Your task to perform on an android device: turn off notifications settings in the gmail app Image 0: 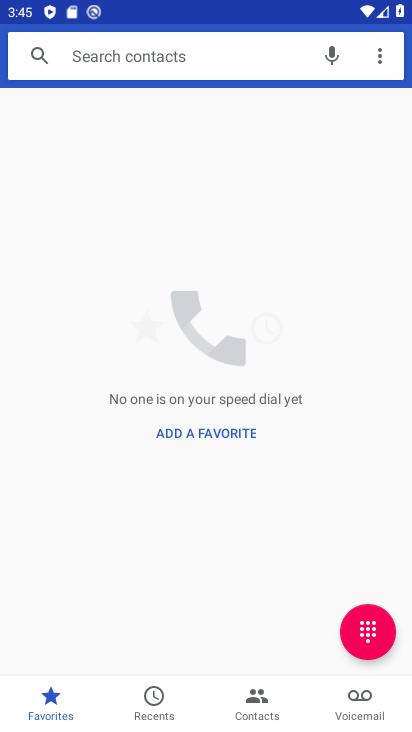
Step 0: press home button
Your task to perform on an android device: turn off notifications settings in the gmail app Image 1: 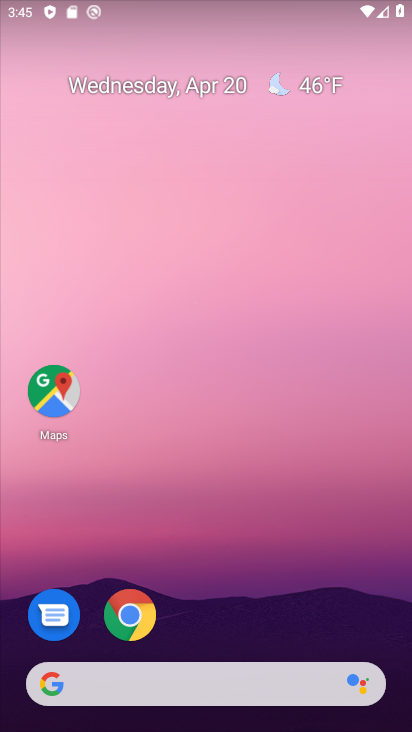
Step 1: drag from (344, 498) to (407, 193)
Your task to perform on an android device: turn off notifications settings in the gmail app Image 2: 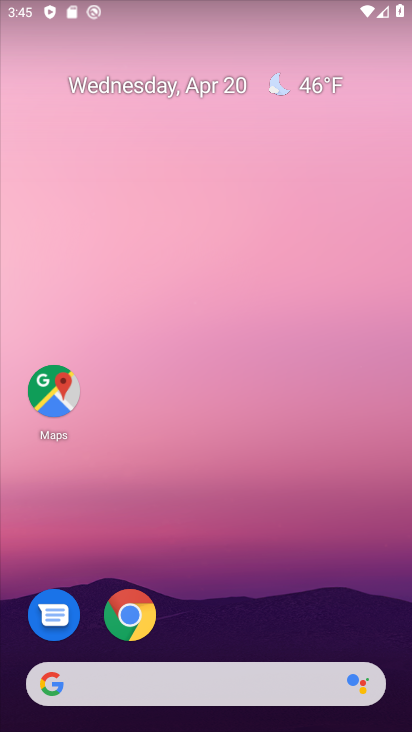
Step 2: drag from (286, 588) to (384, 162)
Your task to perform on an android device: turn off notifications settings in the gmail app Image 3: 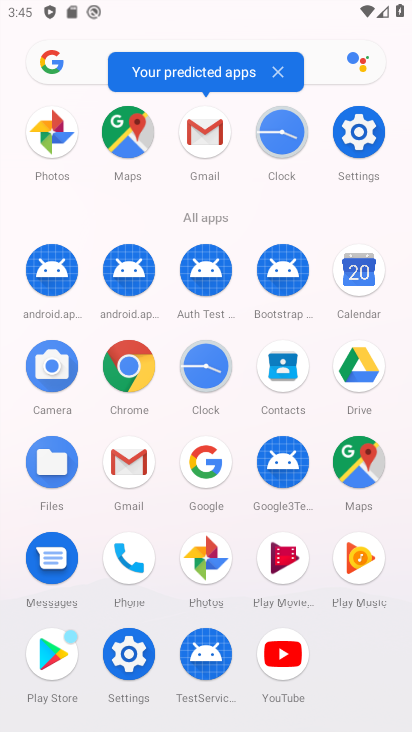
Step 3: click (173, 127)
Your task to perform on an android device: turn off notifications settings in the gmail app Image 4: 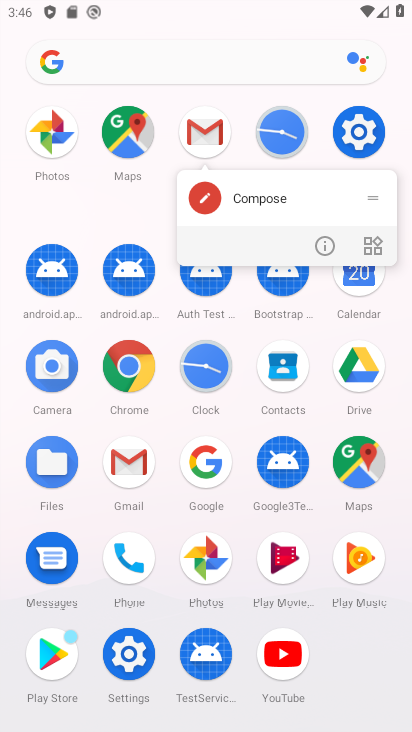
Step 4: click (206, 117)
Your task to perform on an android device: turn off notifications settings in the gmail app Image 5: 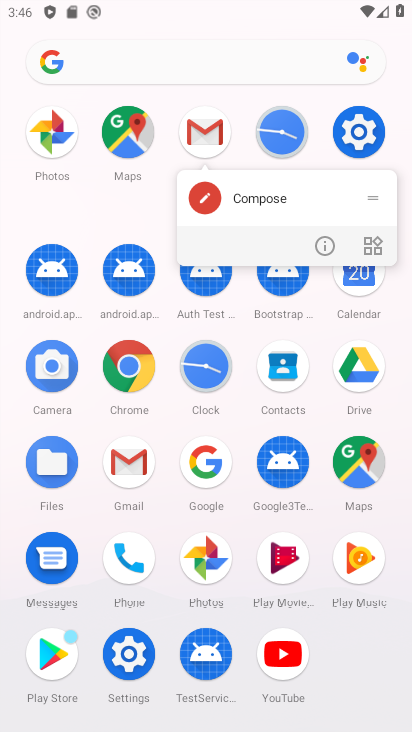
Step 5: click (206, 117)
Your task to perform on an android device: turn off notifications settings in the gmail app Image 6: 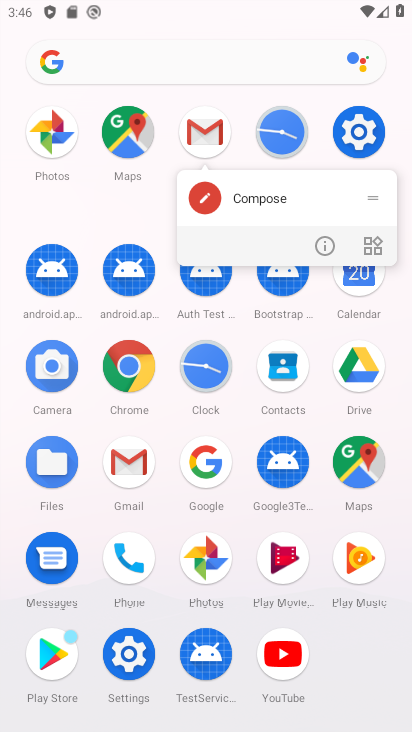
Step 6: click (193, 123)
Your task to perform on an android device: turn off notifications settings in the gmail app Image 7: 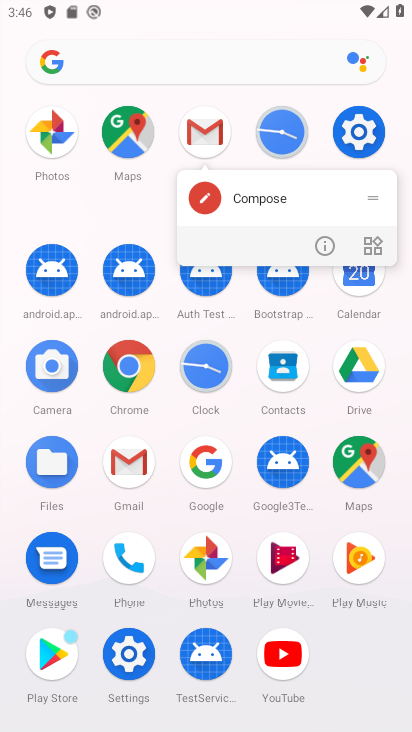
Step 7: click (194, 118)
Your task to perform on an android device: turn off notifications settings in the gmail app Image 8: 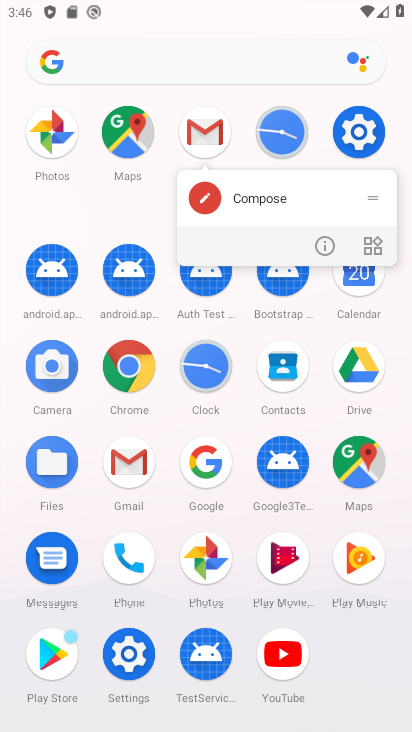
Step 8: click (194, 118)
Your task to perform on an android device: turn off notifications settings in the gmail app Image 9: 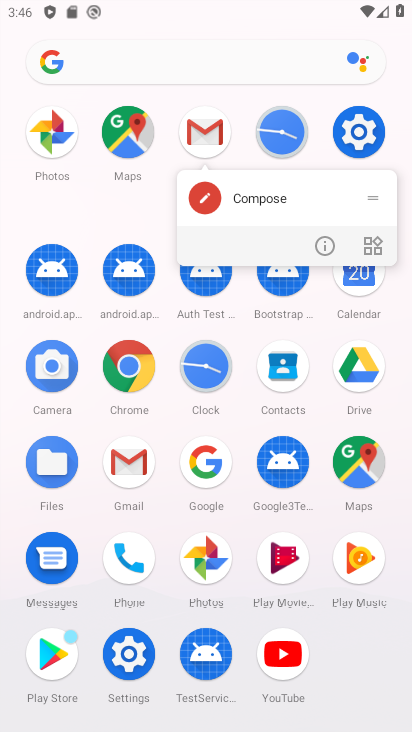
Step 9: click (194, 118)
Your task to perform on an android device: turn off notifications settings in the gmail app Image 10: 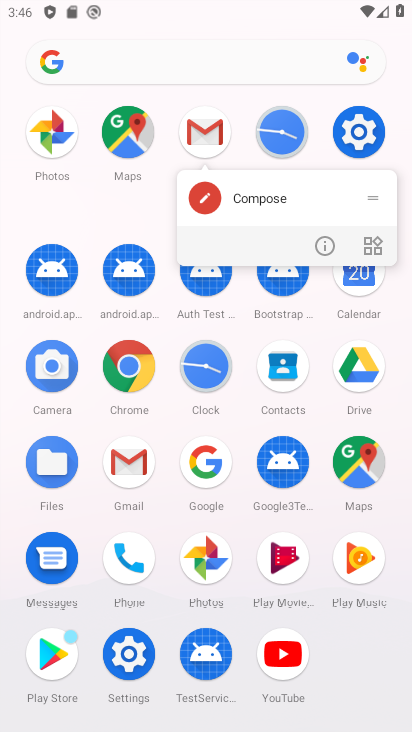
Step 10: click (194, 118)
Your task to perform on an android device: turn off notifications settings in the gmail app Image 11: 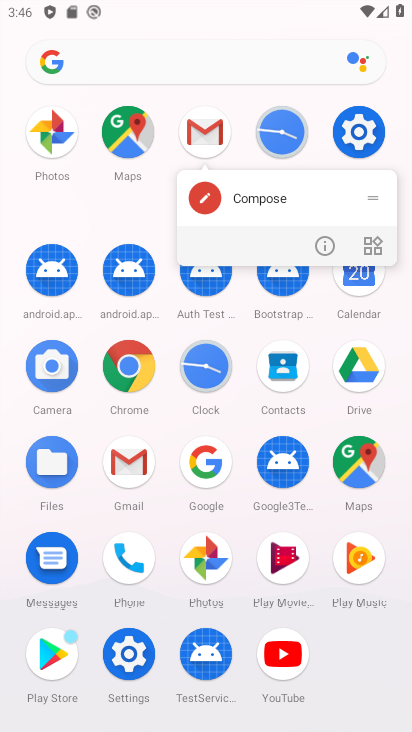
Step 11: click (194, 118)
Your task to perform on an android device: turn off notifications settings in the gmail app Image 12: 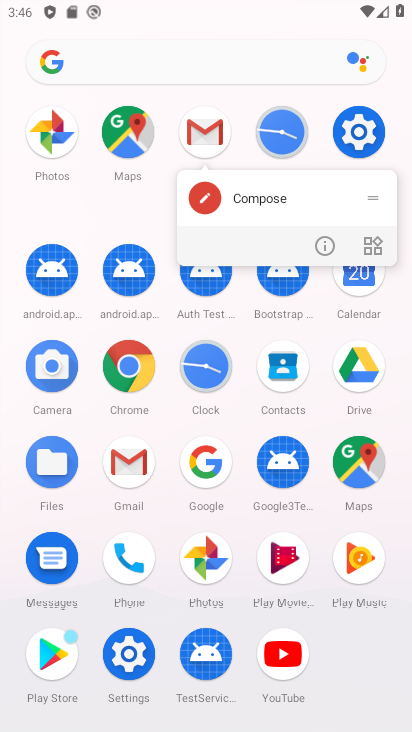
Step 12: click (195, 118)
Your task to perform on an android device: turn off notifications settings in the gmail app Image 13: 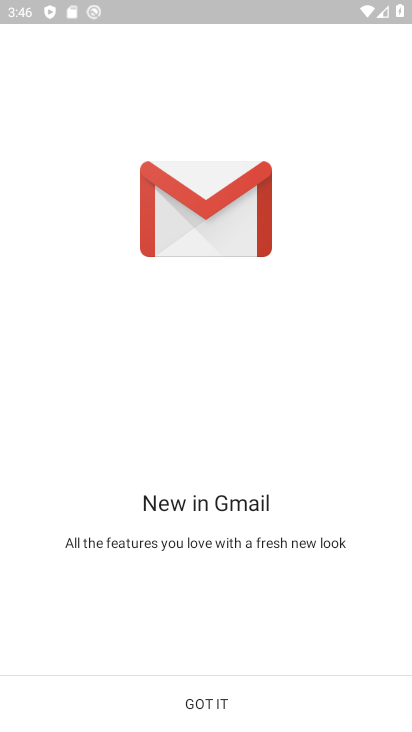
Step 13: click (216, 699)
Your task to perform on an android device: turn off notifications settings in the gmail app Image 14: 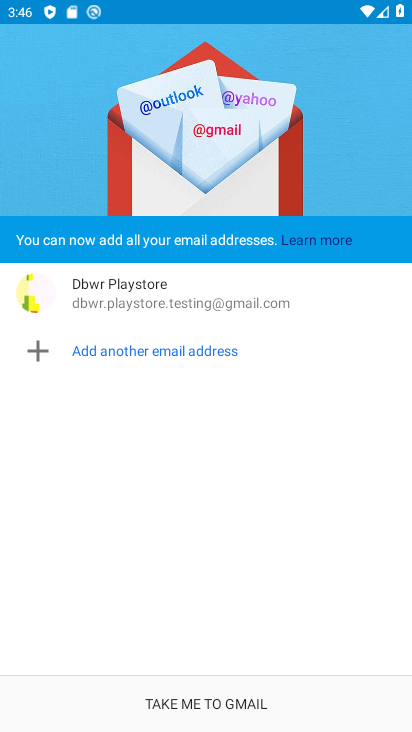
Step 14: click (200, 697)
Your task to perform on an android device: turn off notifications settings in the gmail app Image 15: 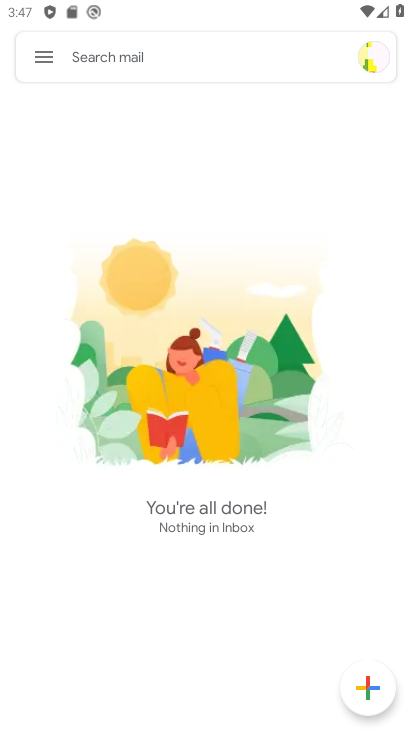
Step 15: click (48, 54)
Your task to perform on an android device: turn off notifications settings in the gmail app Image 16: 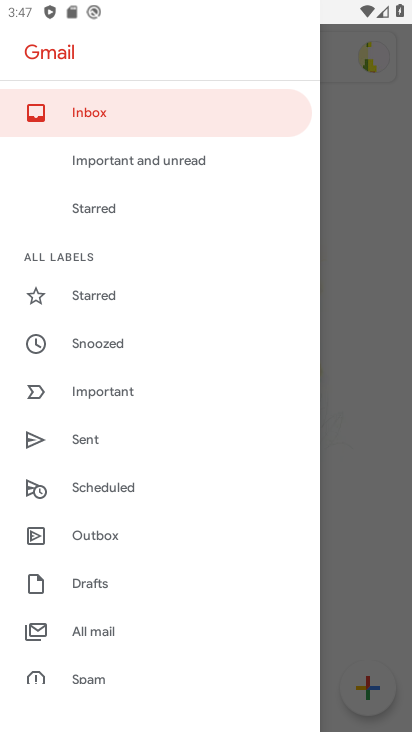
Step 16: drag from (130, 601) to (224, 211)
Your task to perform on an android device: turn off notifications settings in the gmail app Image 17: 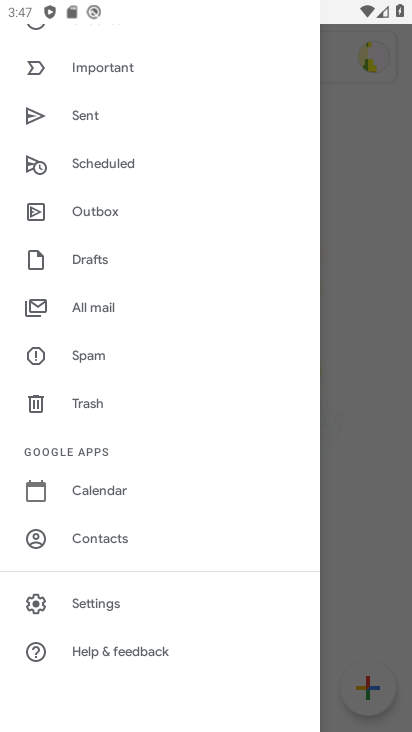
Step 17: click (106, 609)
Your task to perform on an android device: turn off notifications settings in the gmail app Image 18: 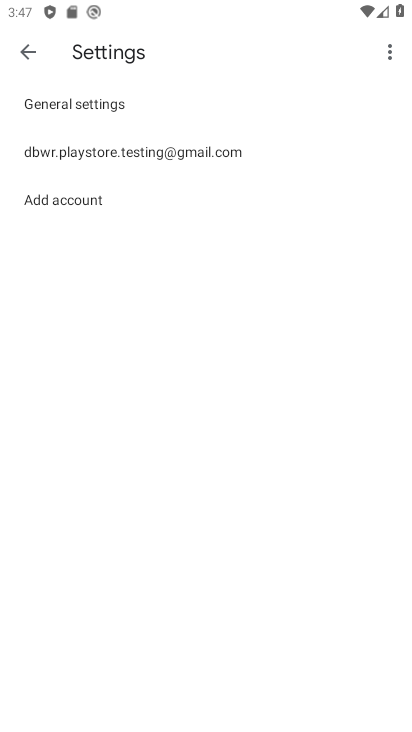
Step 18: click (61, 157)
Your task to perform on an android device: turn off notifications settings in the gmail app Image 19: 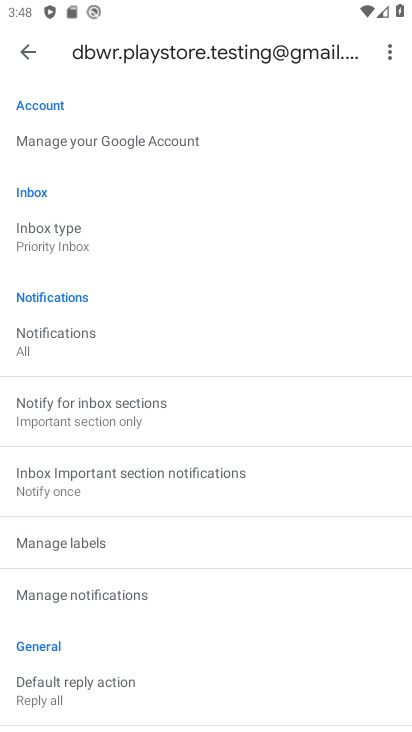
Step 19: click (72, 341)
Your task to perform on an android device: turn off notifications settings in the gmail app Image 20: 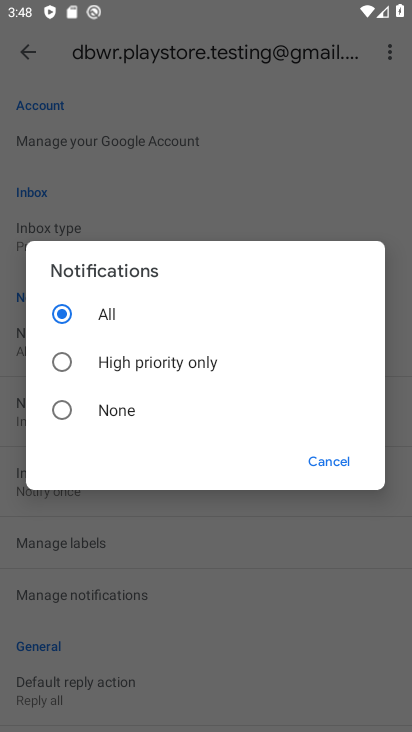
Step 20: click (106, 422)
Your task to perform on an android device: turn off notifications settings in the gmail app Image 21: 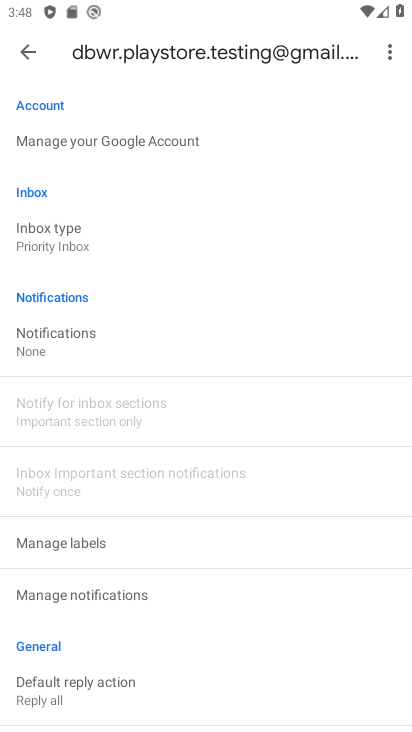
Step 21: task complete